Your task to perform on an android device: add a contact Image 0: 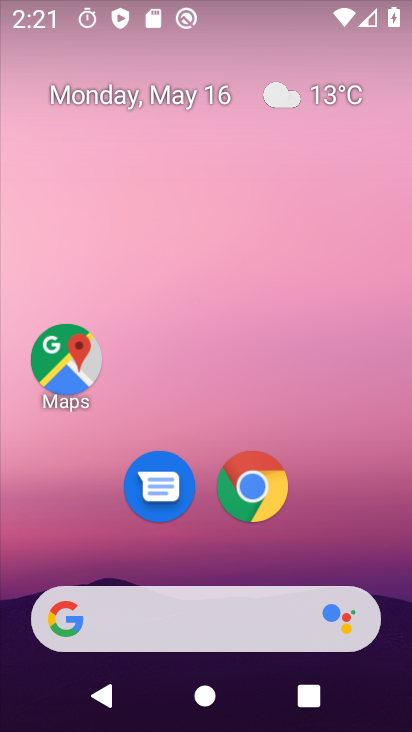
Step 0: drag from (369, 515) to (326, 71)
Your task to perform on an android device: add a contact Image 1: 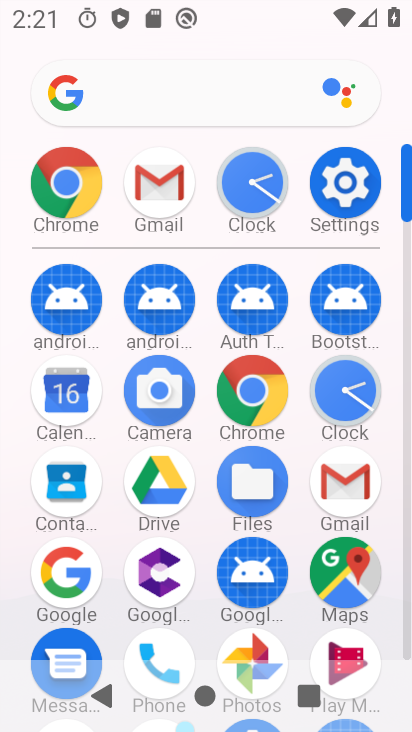
Step 1: click (62, 502)
Your task to perform on an android device: add a contact Image 2: 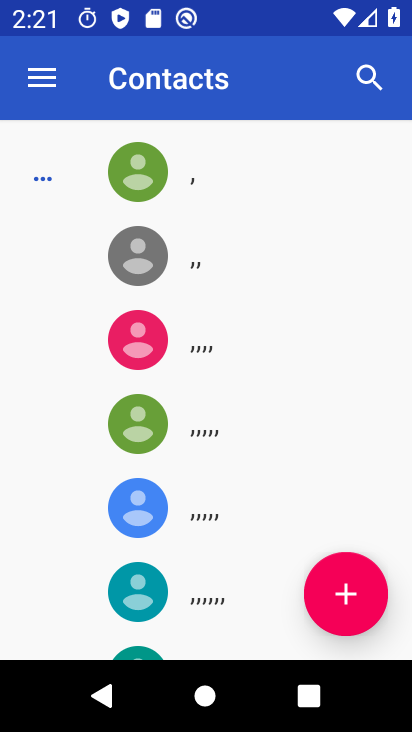
Step 2: task complete